Your task to perform on an android device: See recent photos Image 0: 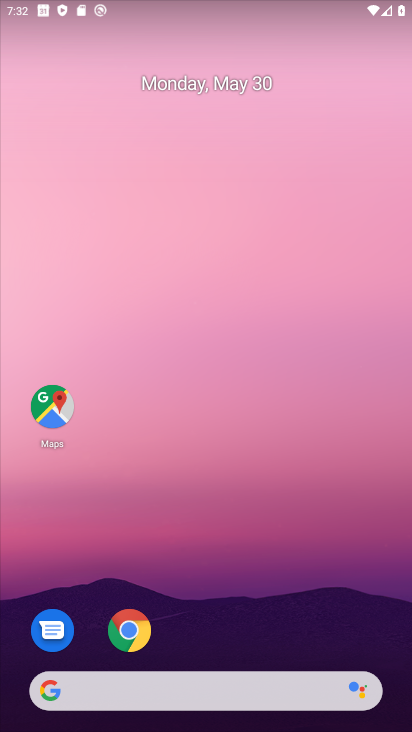
Step 0: drag from (172, 697) to (340, 103)
Your task to perform on an android device: See recent photos Image 1: 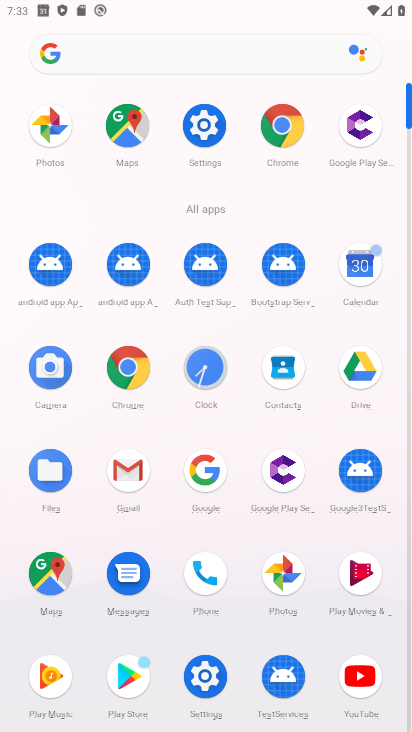
Step 1: click (53, 119)
Your task to perform on an android device: See recent photos Image 2: 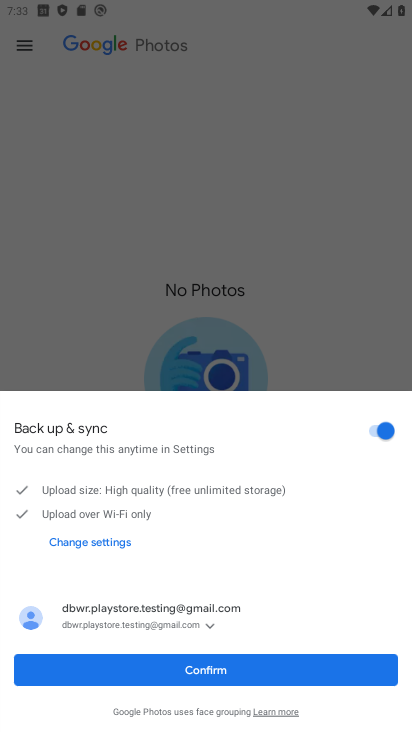
Step 2: click (191, 670)
Your task to perform on an android device: See recent photos Image 3: 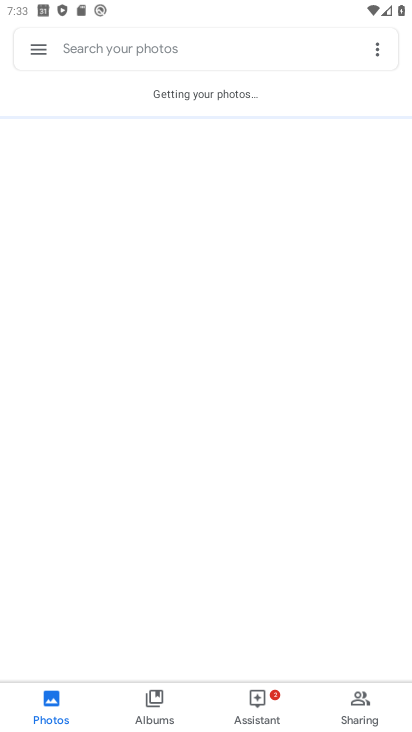
Step 3: click (163, 697)
Your task to perform on an android device: See recent photos Image 4: 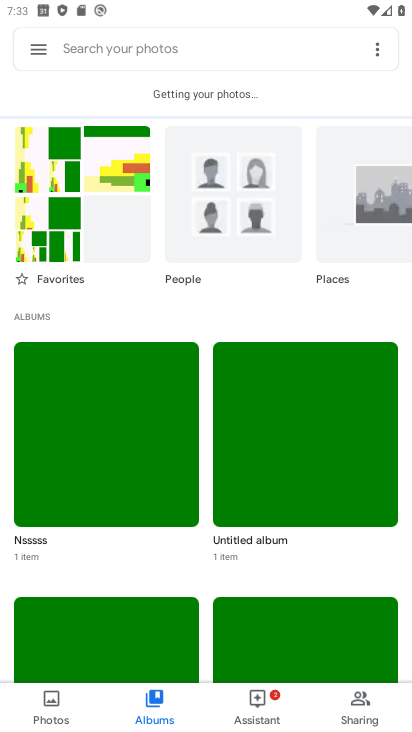
Step 4: task complete